Your task to perform on an android device: Go to Google maps Image 0: 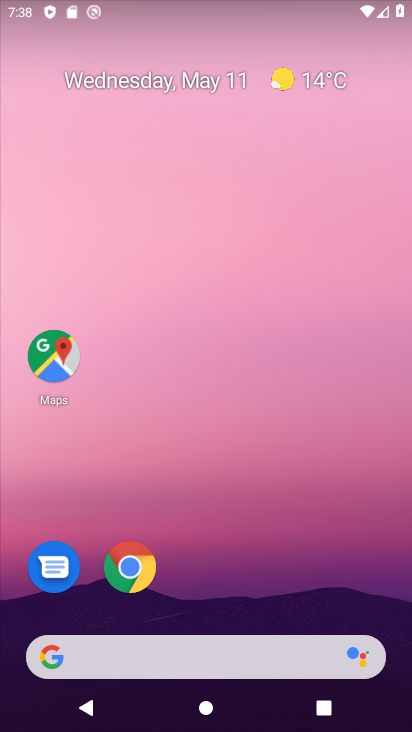
Step 0: click (46, 369)
Your task to perform on an android device: Go to Google maps Image 1: 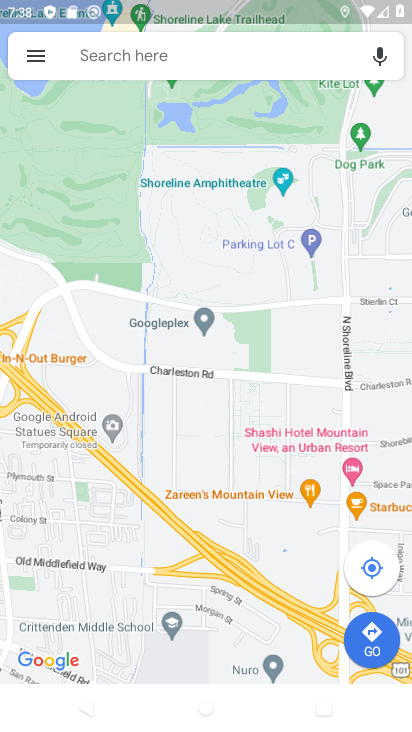
Step 1: task complete